Your task to perform on an android device: Go to display settings Image 0: 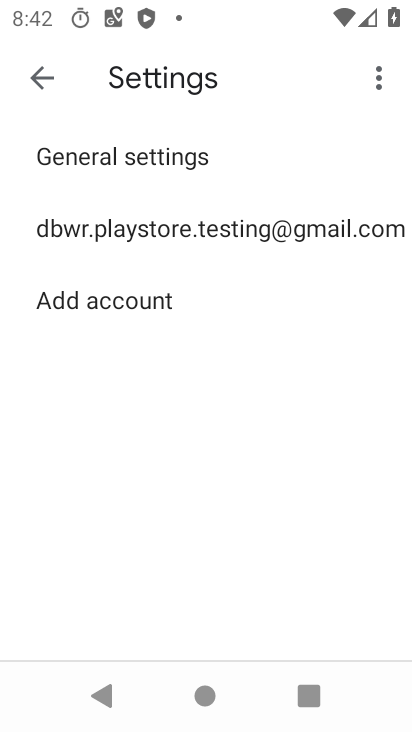
Step 0: press home button
Your task to perform on an android device: Go to display settings Image 1: 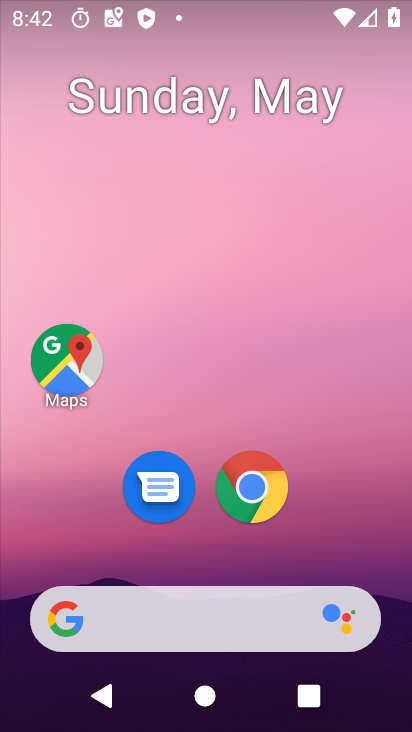
Step 1: drag from (137, 510) to (312, 241)
Your task to perform on an android device: Go to display settings Image 2: 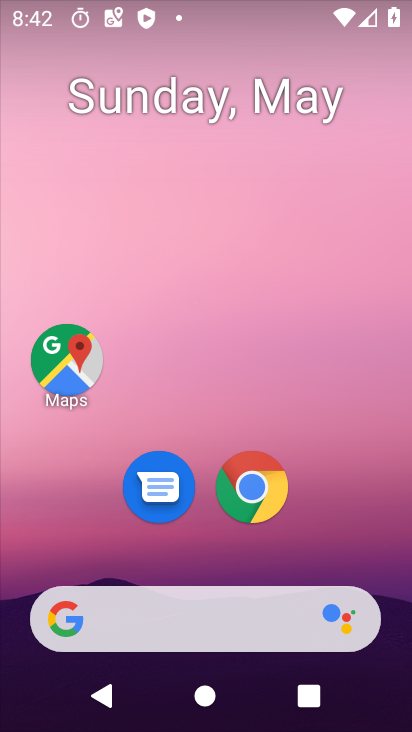
Step 2: drag from (143, 363) to (355, 79)
Your task to perform on an android device: Go to display settings Image 3: 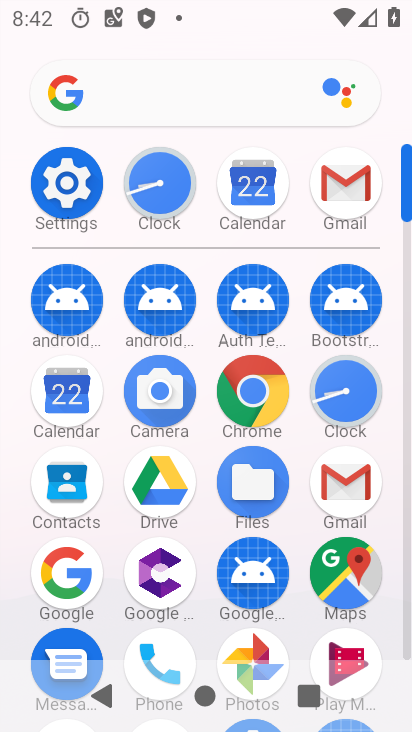
Step 3: click (81, 211)
Your task to perform on an android device: Go to display settings Image 4: 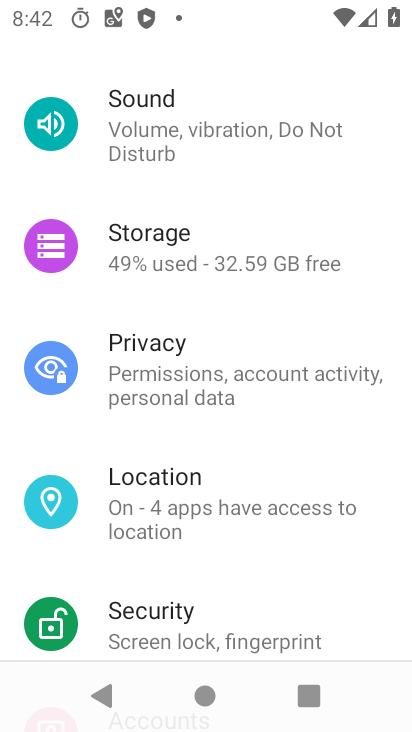
Step 4: drag from (257, 183) to (247, 516)
Your task to perform on an android device: Go to display settings Image 5: 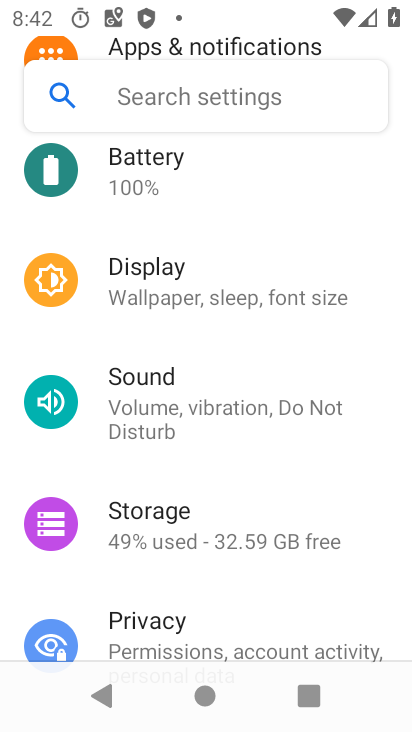
Step 5: click (217, 297)
Your task to perform on an android device: Go to display settings Image 6: 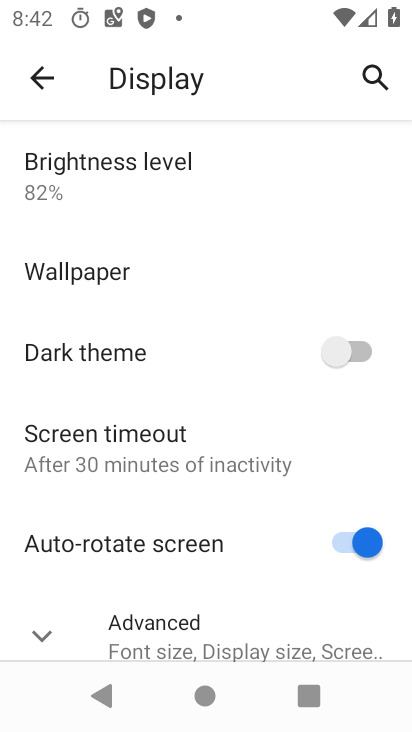
Step 6: task complete